Your task to perform on an android device: Open ESPN.com Image 0: 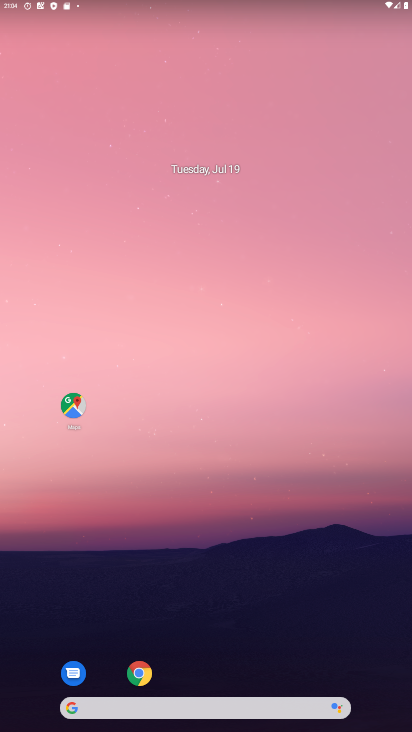
Step 0: click (142, 671)
Your task to perform on an android device: Open ESPN.com Image 1: 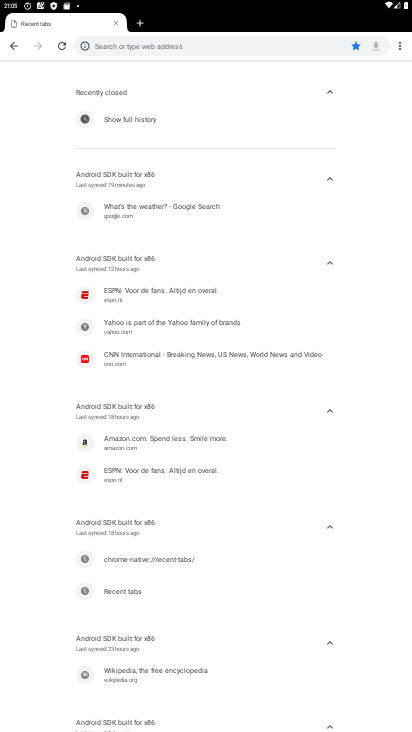
Step 1: click (174, 41)
Your task to perform on an android device: Open ESPN.com Image 2: 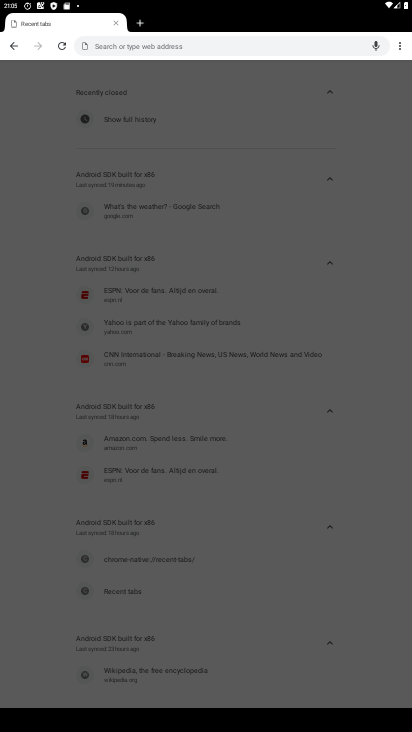
Step 2: type "ESPN.com"
Your task to perform on an android device: Open ESPN.com Image 3: 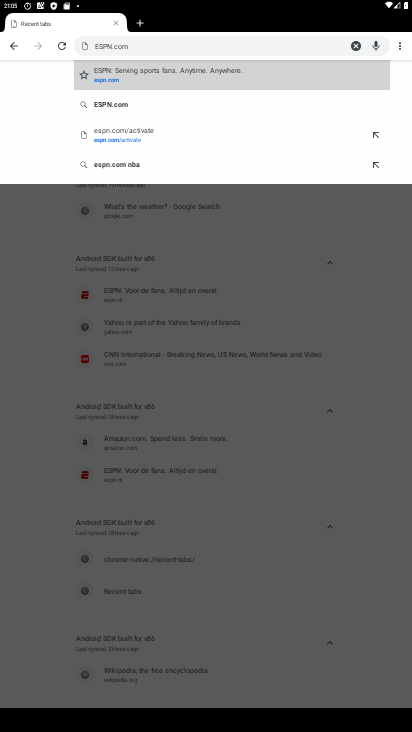
Step 3: click (136, 76)
Your task to perform on an android device: Open ESPN.com Image 4: 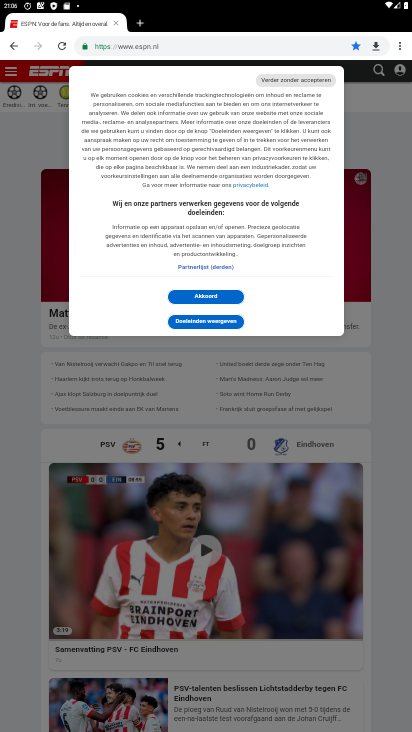
Step 4: task complete